Your task to perform on an android device: Is it going to rain today? Image 0: 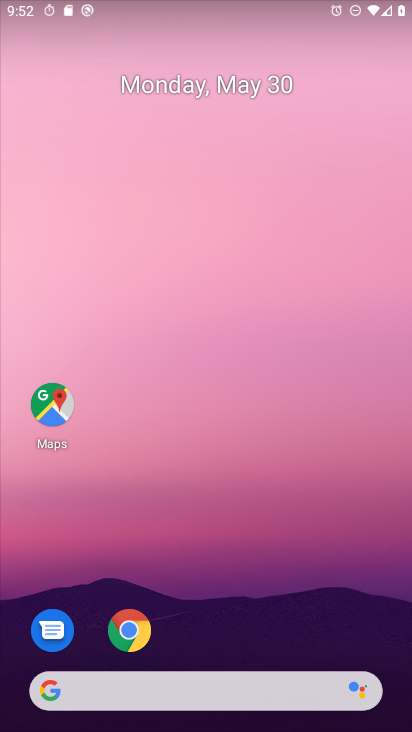
Step 0: drag from (315, 623) to (285, 31)
Your task to perform on an android device: Is it going to rain today? Image 1: 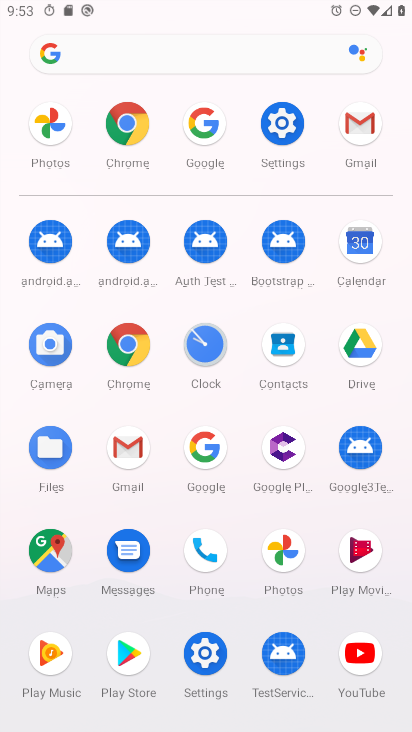
Step 1: click (192, 438)
Your task to perform on an android device: Is it going to rain today? Image 2: 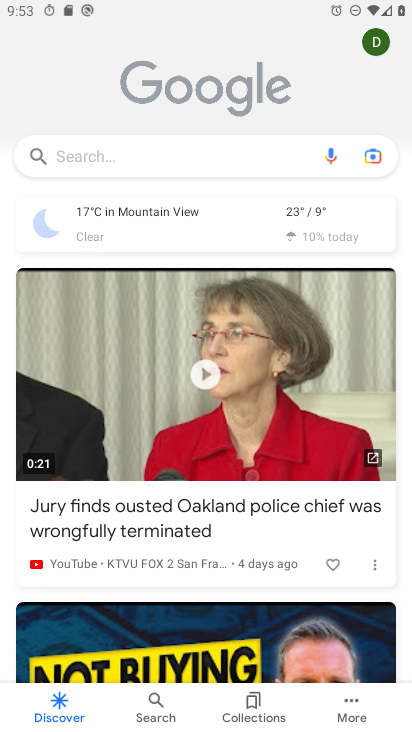
Step 2: click (122, 155)
Your task to perform on an android device: Is it going to rain today? Image 3: 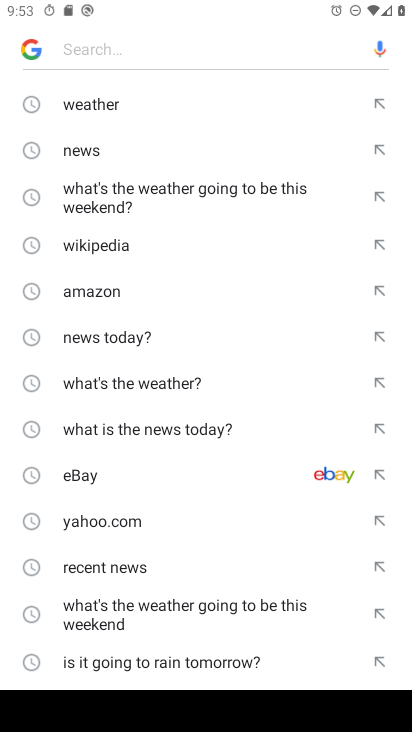
Step 3: drag from (163, 623) to (200, 304)
Your task to perform on an android device: Is it going to rain today? Image 4: 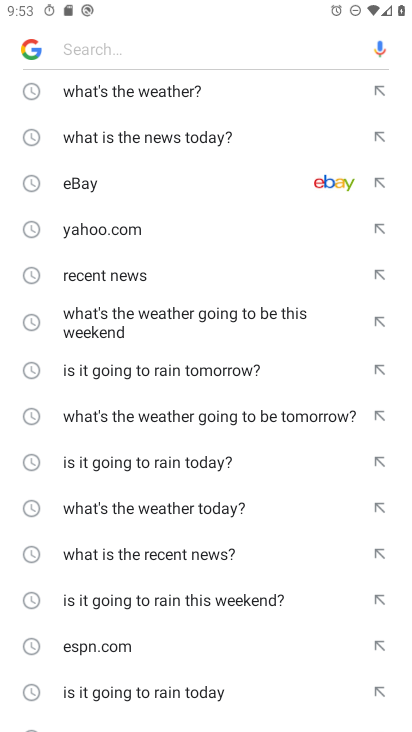
Step 4: click (182, 465)
Your task to perform on an android device: Is it going to rain today? Image 5: 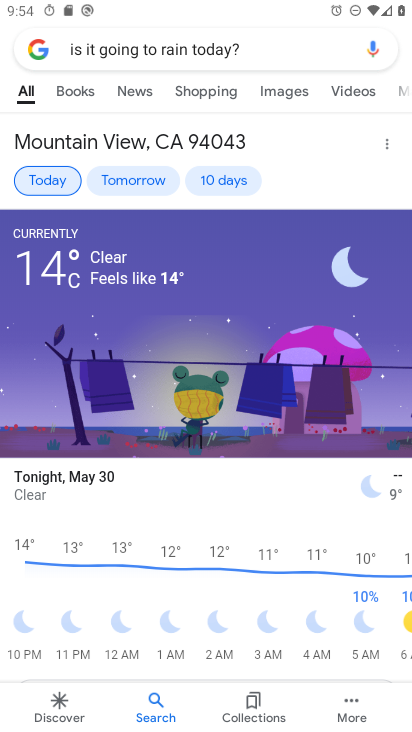
Step 5: task complete